Your task to perform on an android device: Set the phone to "Do not disturb". Image 0: 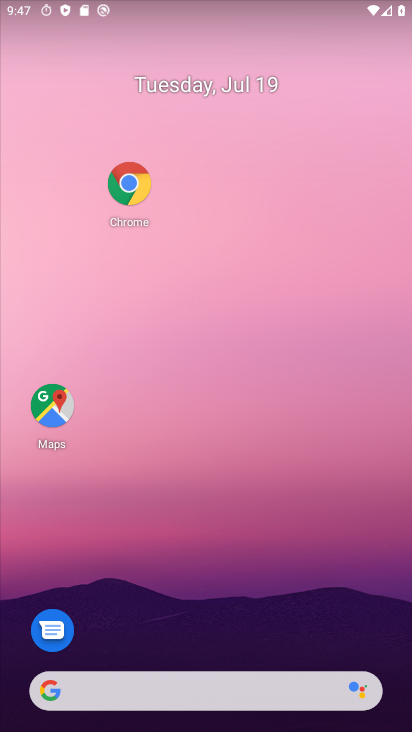
Step 0: drag from (192, 5) to (186, 376)
Your task to perform on an android device: Set the phone to "Do not disturb". Image 1: 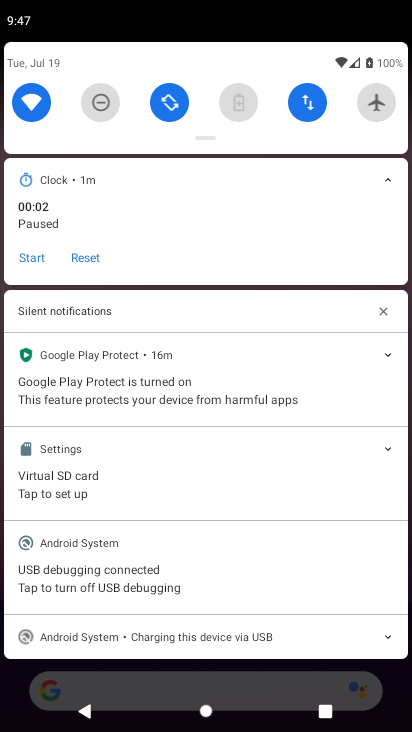
Step 1: click (102, 106)
Your task to perform on an android device: Set the phone to "Do not disturb". Image 2: 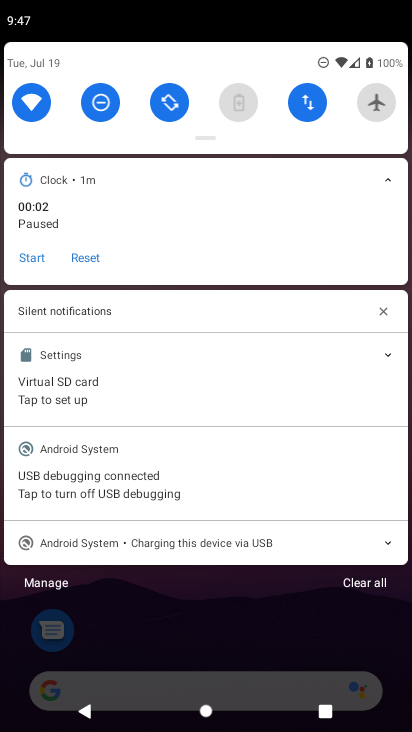
Step 2: task complete